Your task to perform on an android device: Do I have any events tomorrow? Image 0: 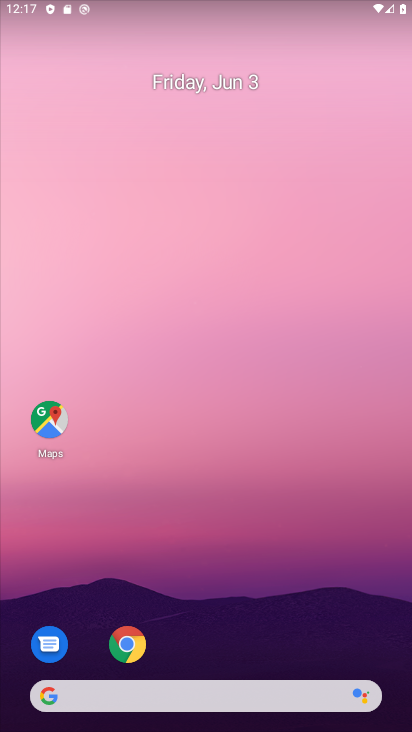
Step 0: drag from (227, 594) to (292, 50)
Your task to perform on an android device: Do I have any events tomorrow? Image 1: 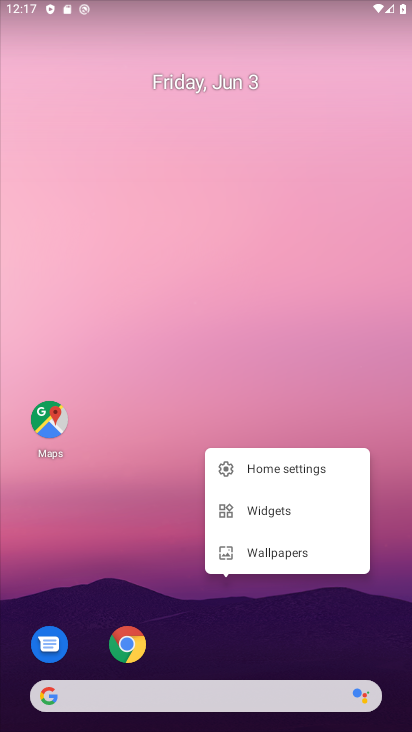
Step 1: click (212, 640)
Your task to perform on an android device: Do I have any events tomorrow? Image 2: 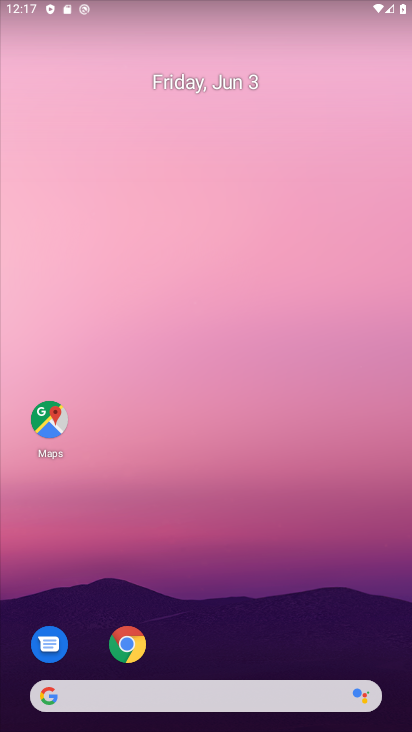
Step 2: drag from (212, 640) to (272, 70)
Your task to perform on an android device: Do I have any events tomorrow? Image 3: 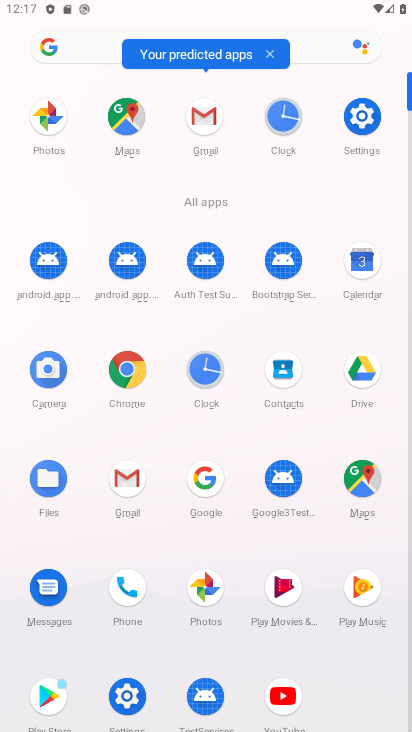
Step 3: click (375, 272)
Your task to perform on an android device: Do I have any events tomorrow? Image 4: 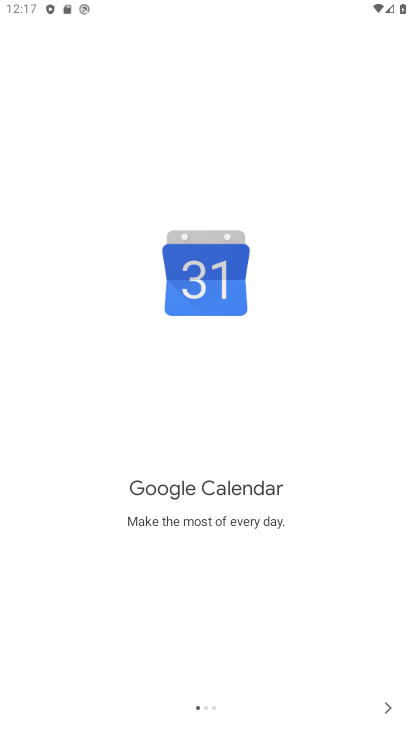
Step 4: click (384, 699)
Your task to perform on an android device: Do I have any events tomorrow? Image 5: 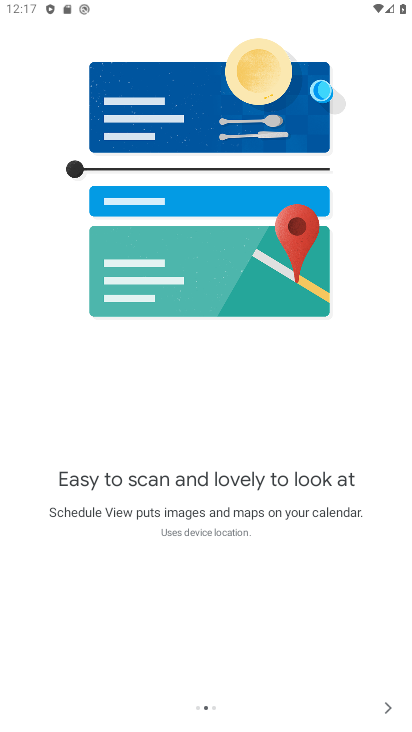
Step 5: click (382, 696)
Your task to perform on an android device: Do I have any events tomorrow? Image 6: 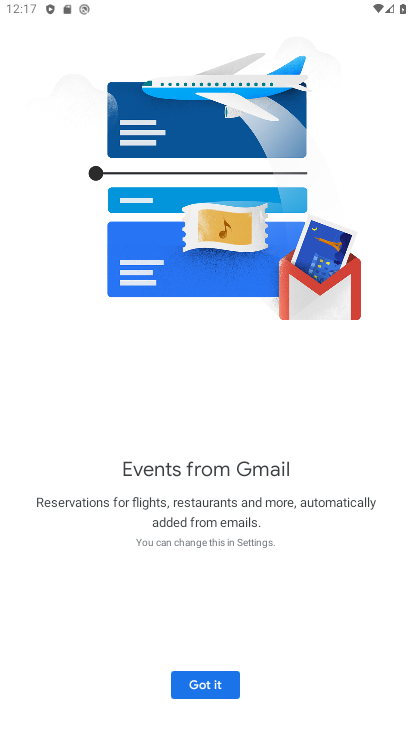
Step 6: click (201, 679)
Your task to perform on an android device: Do I have any events tomorrow? Image 7: 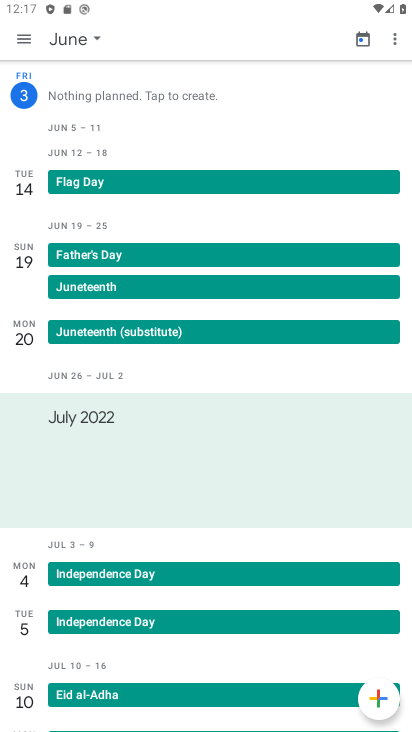
Step 7: click (23, 35)
Your task to perform on an android device: Do I have any events tomorrow? Image 8: 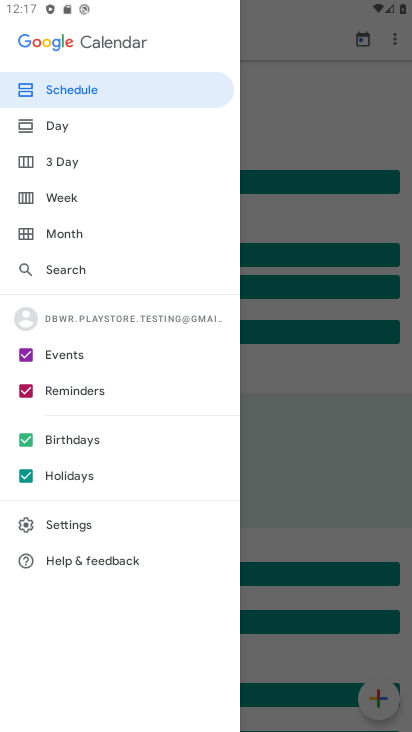
Step 8: click (51, 388)
Your task to perform on an android device: Do I have any events tomorrow? Image 9: 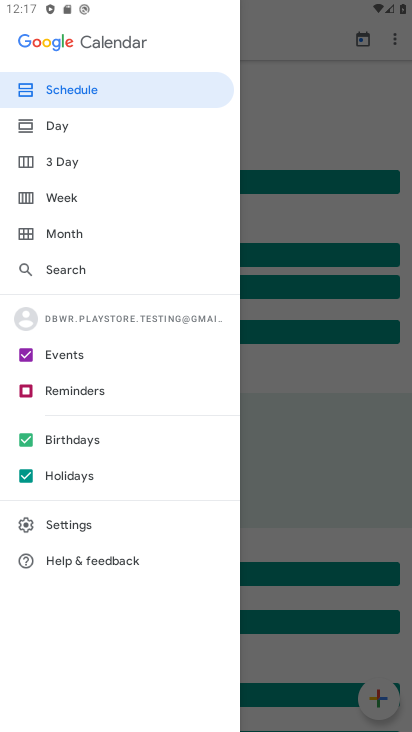
Step 9: click (54, 442)
Your task to perform on an android device: Do I have any events tomorrow? Image 10: 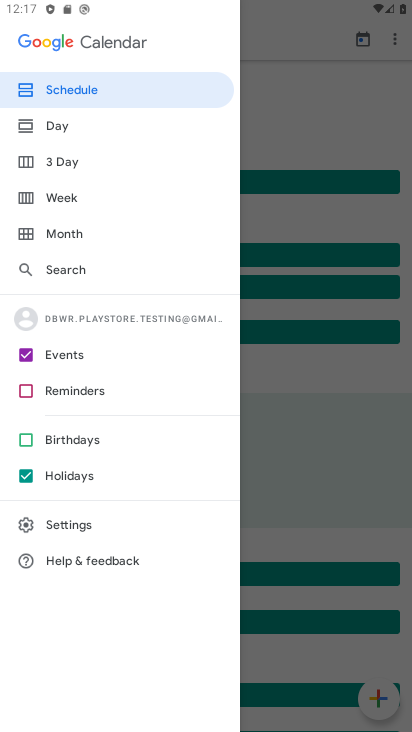
Step 10: click (42, 475)
Your task to perform on an android device: Do I have any events tomorrow? Image 11: 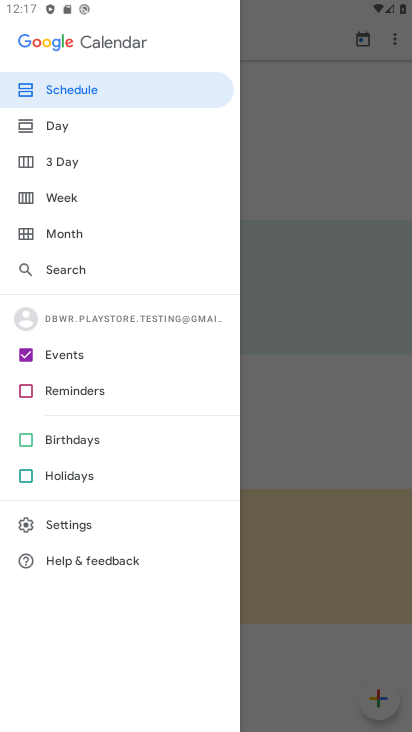
Step 11: click (71, 157)
Your task to perform on an android device: Do I have any events tomorrow? Image 12: 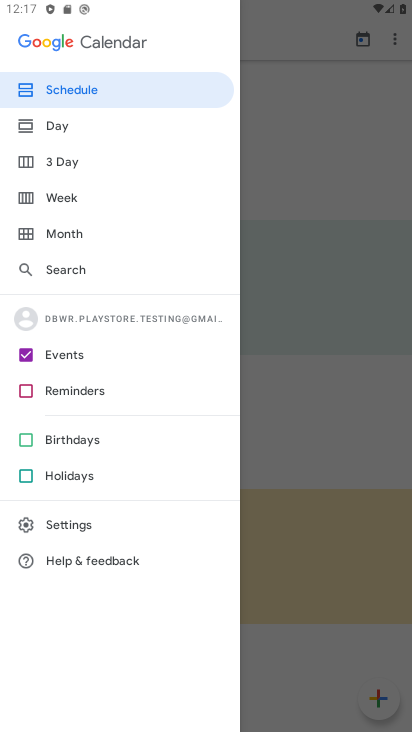
Step 12: click (63, 165)
Your task to perform on an android device: Do I have any events tomorrow? Image 13: 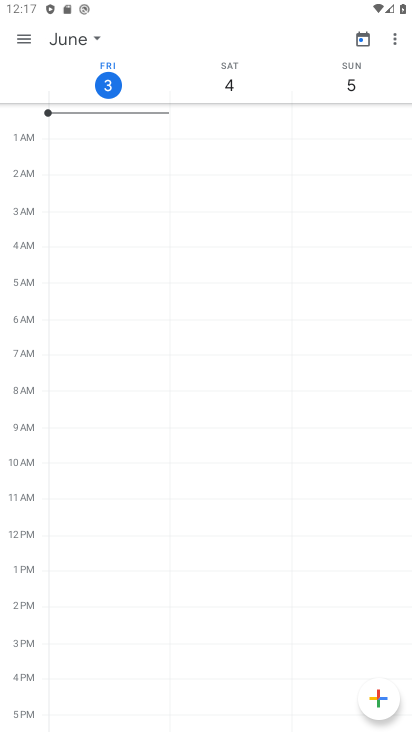
Step 13: task complete